Your task to perform on an android device: Open Wikipedia Image 0: 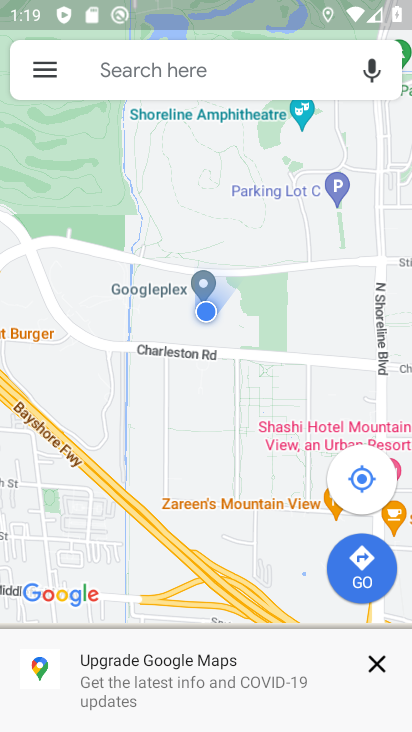
Step 0: press home button
Your task to perform on an android device: Open Wikipedia Image 1: 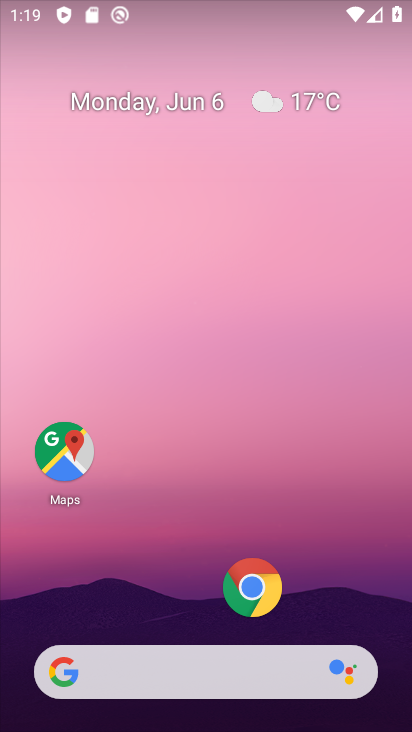
Step 1: click (266, 597)
Your task to perform on an android device: Open Wikipedia Image 2: 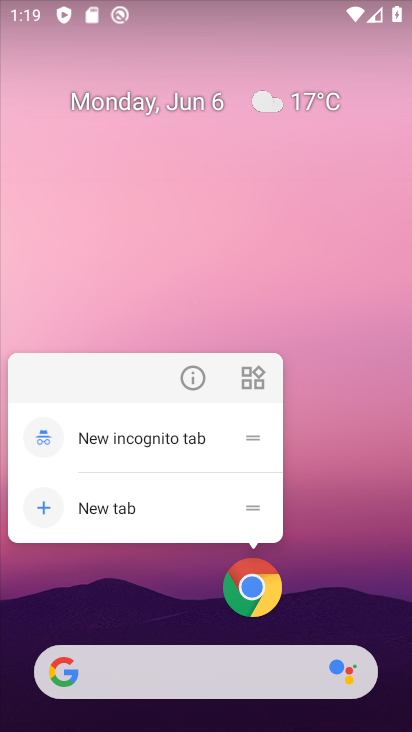
Step 2: click (249, 595)
Your task to perform on an android device: Open Wikipedia Image 3: 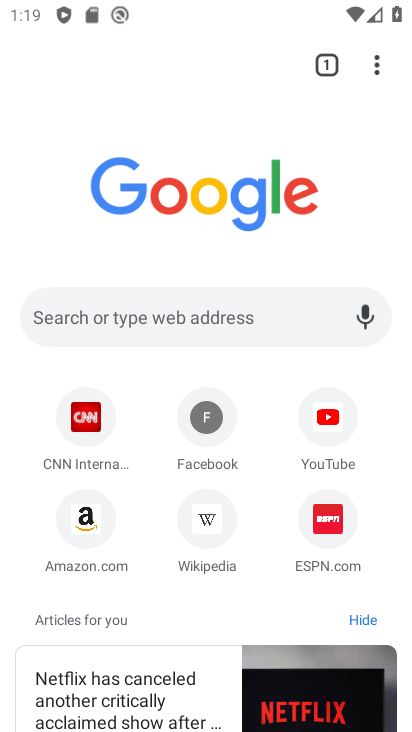
Step 3: click (217, 547)
Your task to perform on an android device: Open Wikipedia Image 4: 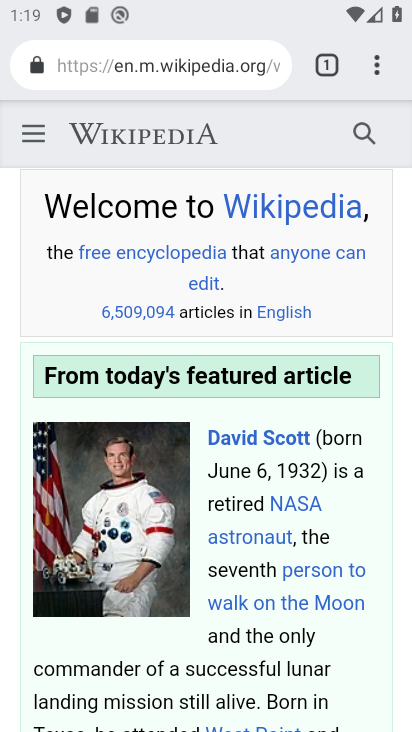
Step 4: task complete